Your task to perform on an android device: Open network settings Image 0: 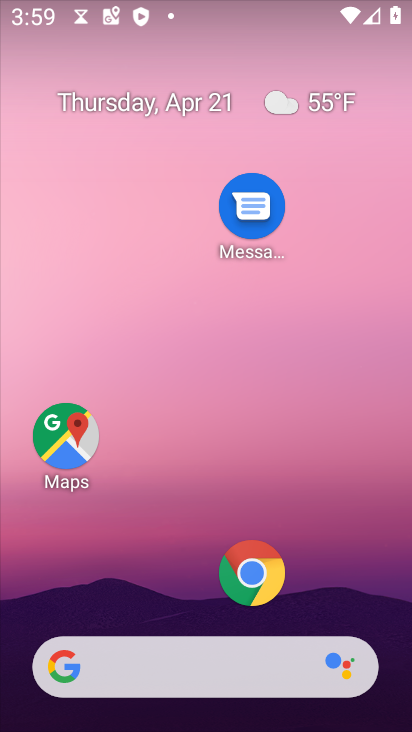
Step 0: drag from (195, 708) to (289, 8)
Your task to perform on an android device: Open network settings Image 1: 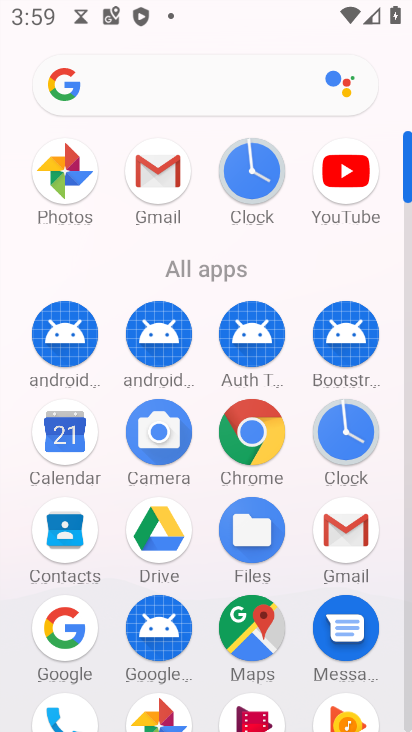
Step 1: drag from (294, 570) to (295, 358)
Your task to perform on an android device: Open network settings Image 2: 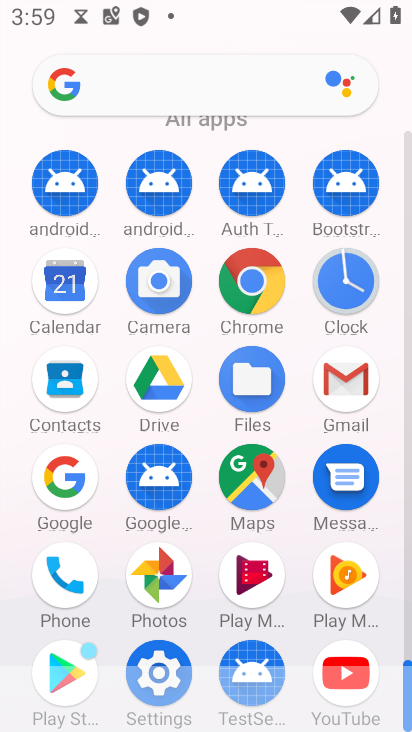
Step 2: click (153, 645)
Your task to perform on an android device: Open network settings Image 3: 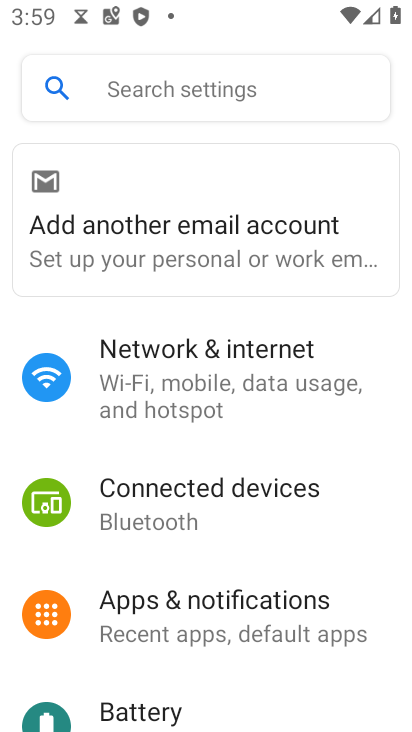
Step 3: click (151, 369)
Your task to perform on an android device: Open network settings Image 4: 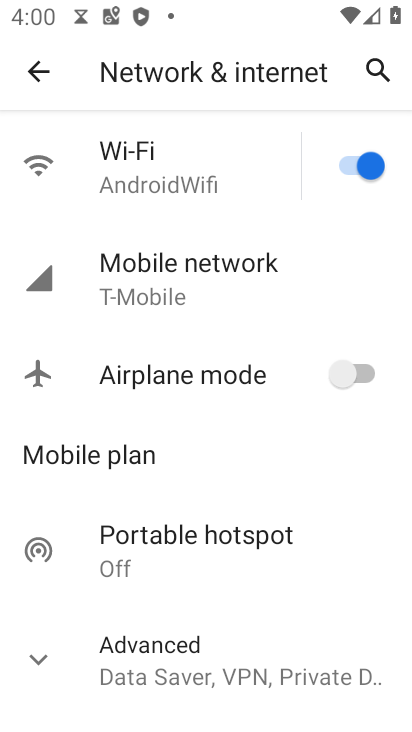
Step 4: click (176, 182)
Your task to perform on an android device: Open network settings Image 5: 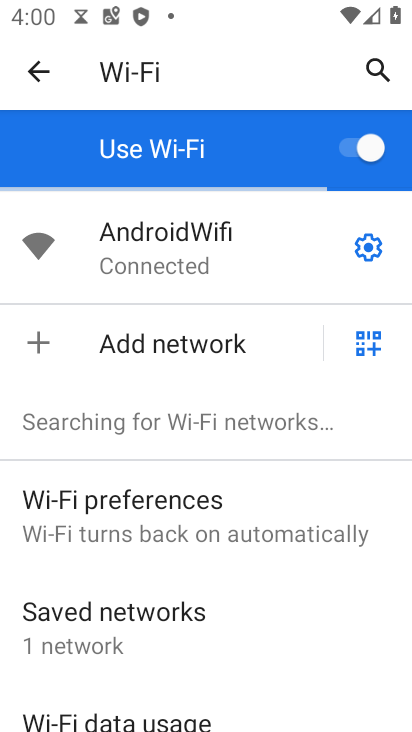
Step 5: task complete